Your task to perform on an android device: Find coffee shops on Maps Image 0: 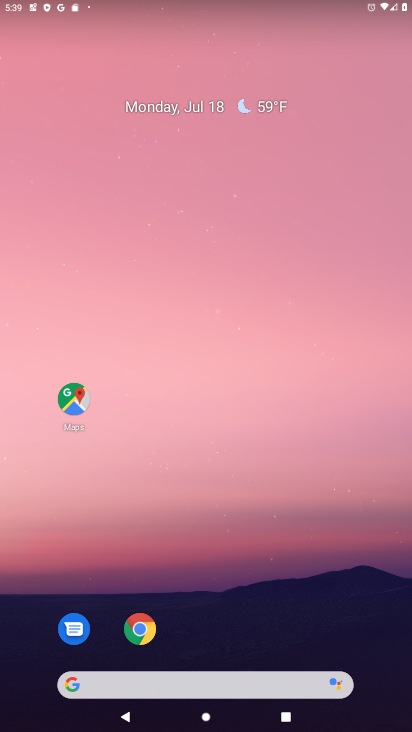
Step 0: drag from (277, 598) to (203, 127)
Your task to perform on an android device: Find coffee shops on Maps Image 1: 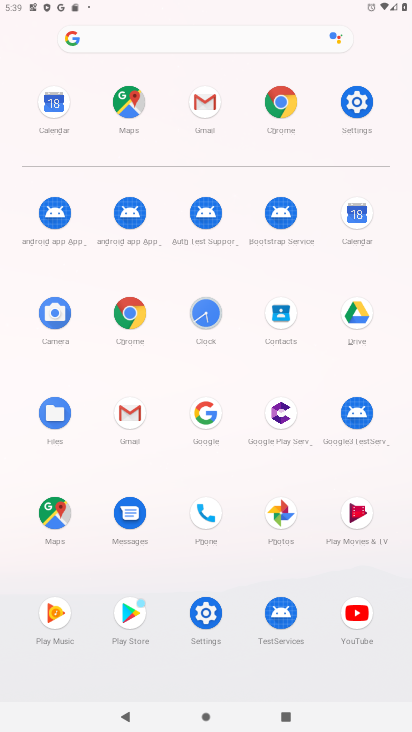
Step 1: click (63, 515)
Your task to perform on an android device: Find coffee shops on Maps Image 2: 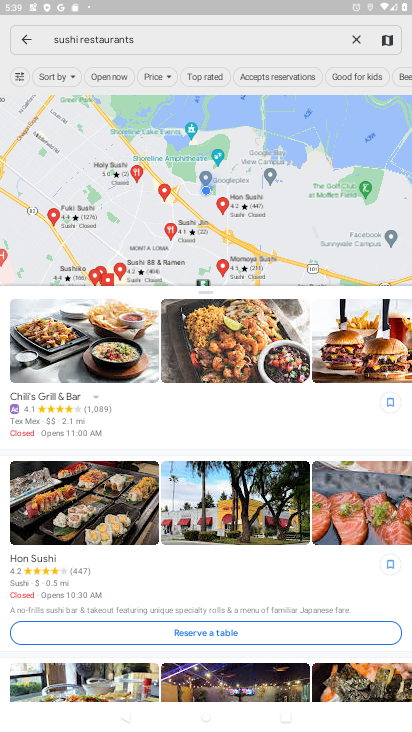
Step 2: click (355, 42)
Your task to perform on an android device: Find coffee shops on Maps Image 3: 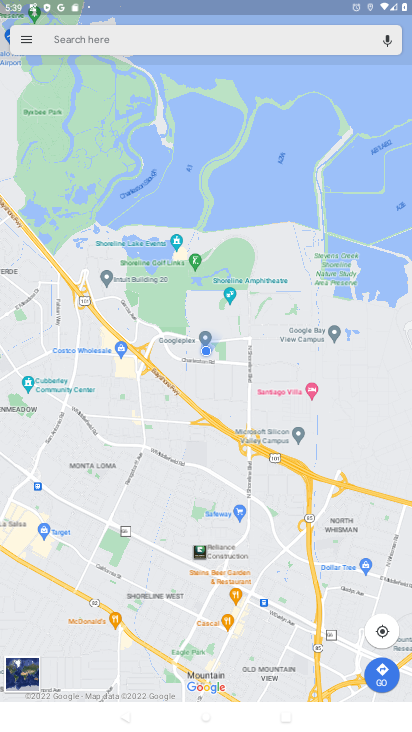
Step 3: click (156, 47)
Your task to perform on an android device: Find coffee shops on Maps Image 4: 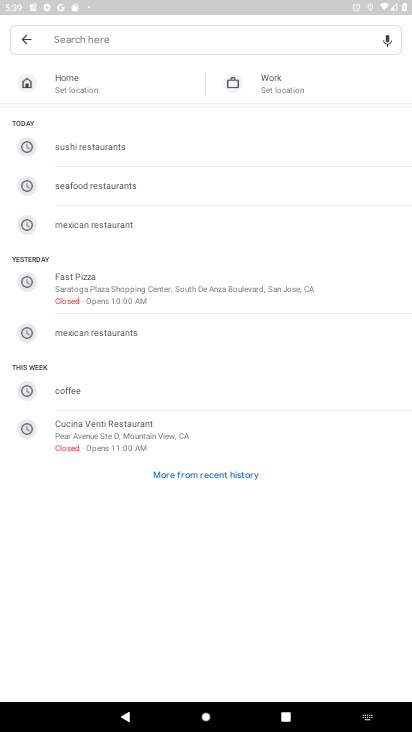
Step 4: type "coffee shops"
Your task to perform on an android device: Find coffee shops on Maps Image 5: 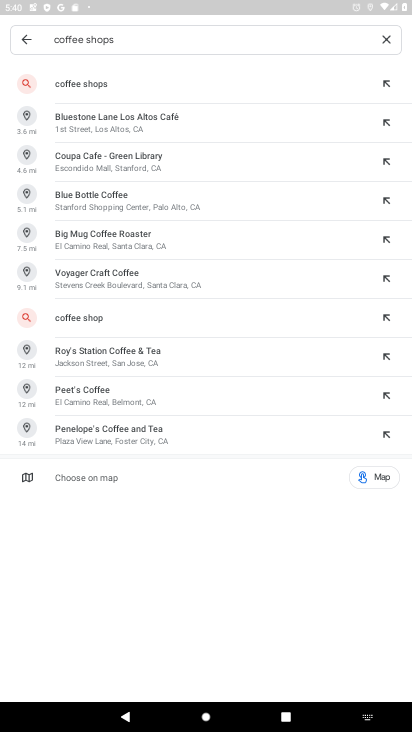
Step 5: click (116, 88)
Your task to perform on an android device: Find coffee shops on Maps Image 6: 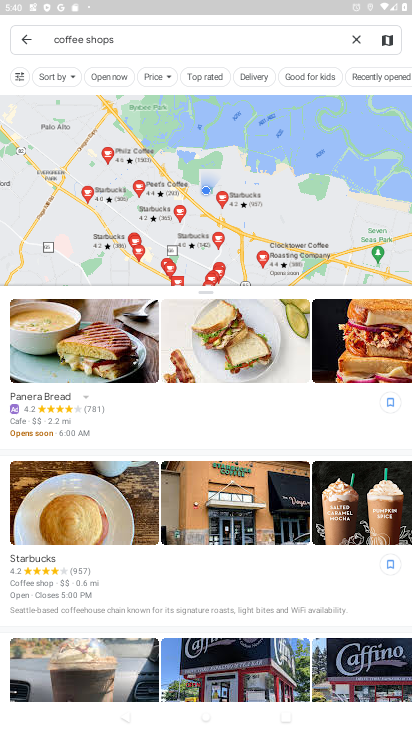
Step 6: task complete